Your task to perform on an android device: Do I have any events today? Image 0: 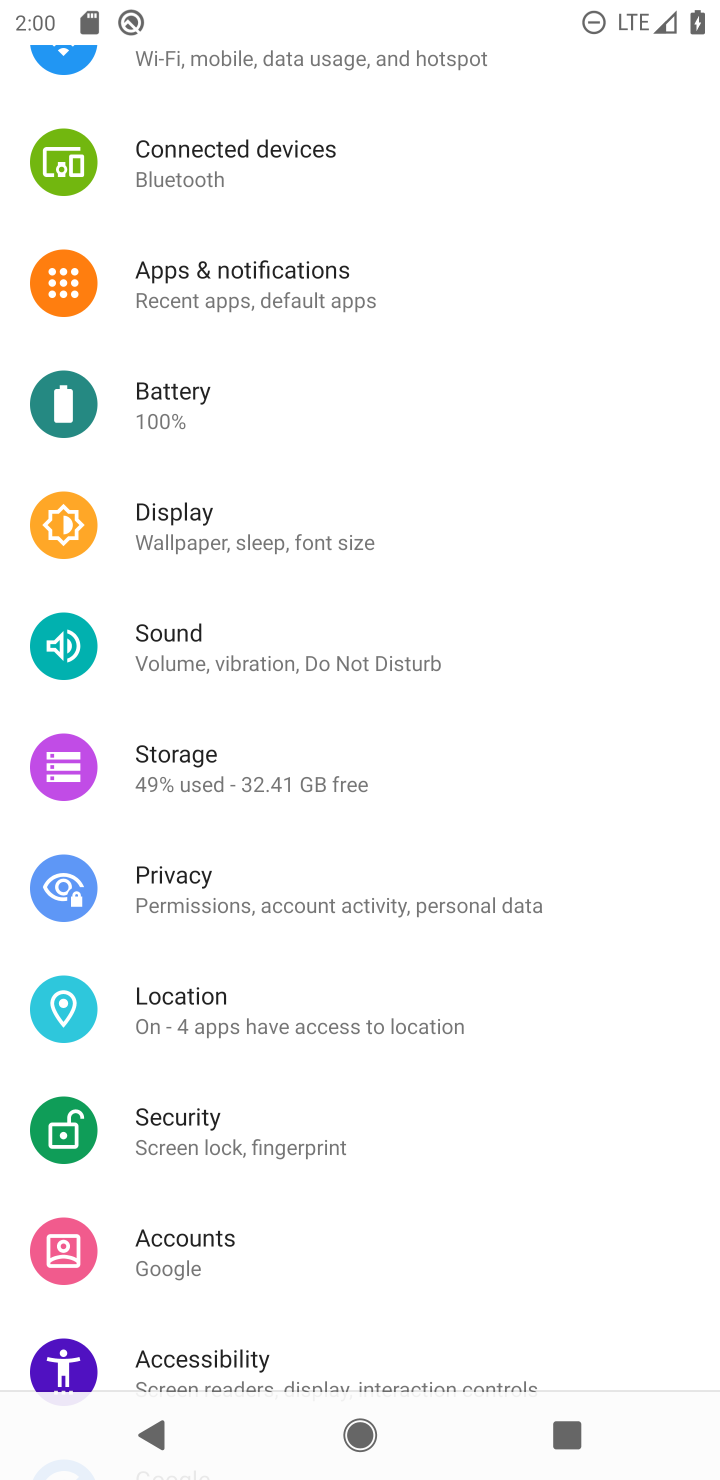
Step 0: press home button
Your task to perform on an android device: Do I have any events today? Image 1: 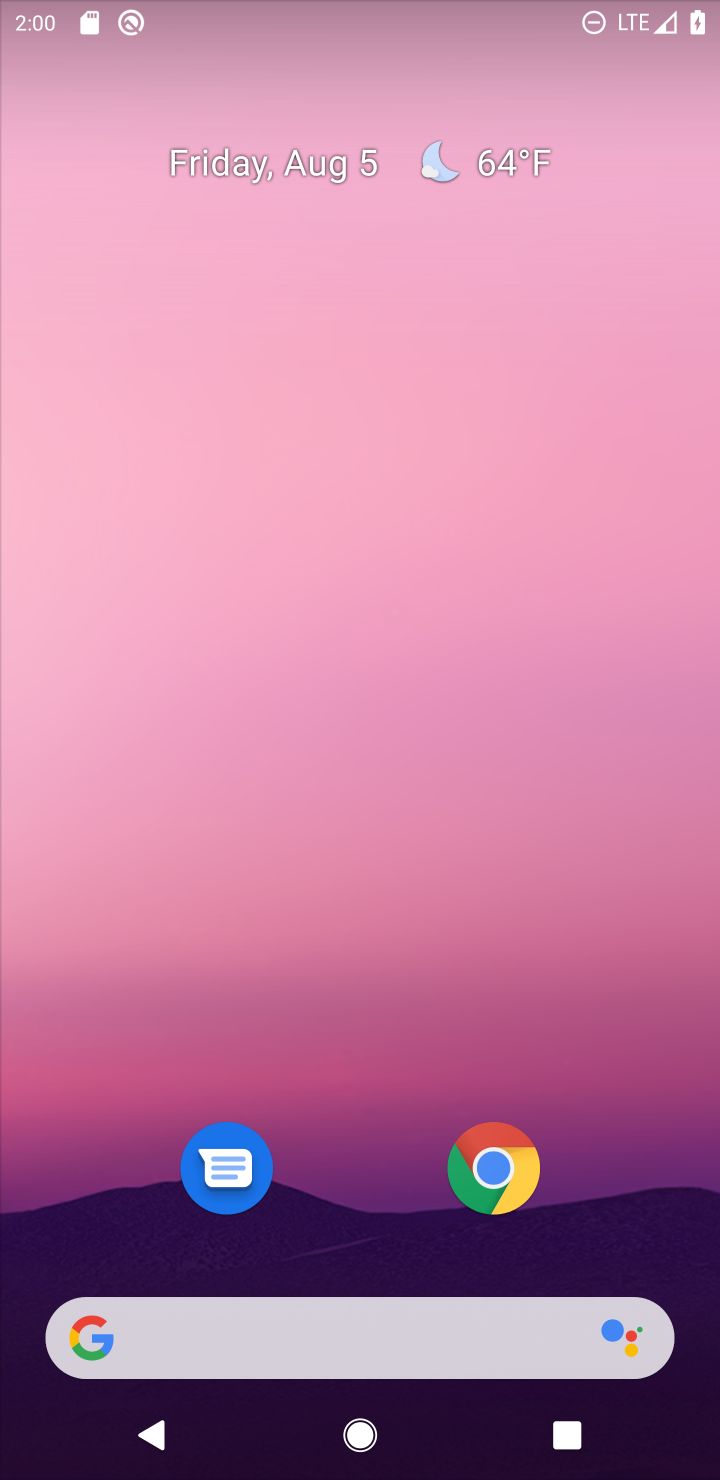
Step 1: drag from (504, 651) to (300, 14)
Your task to perform on an android device: Do I have any events today? Image 2: 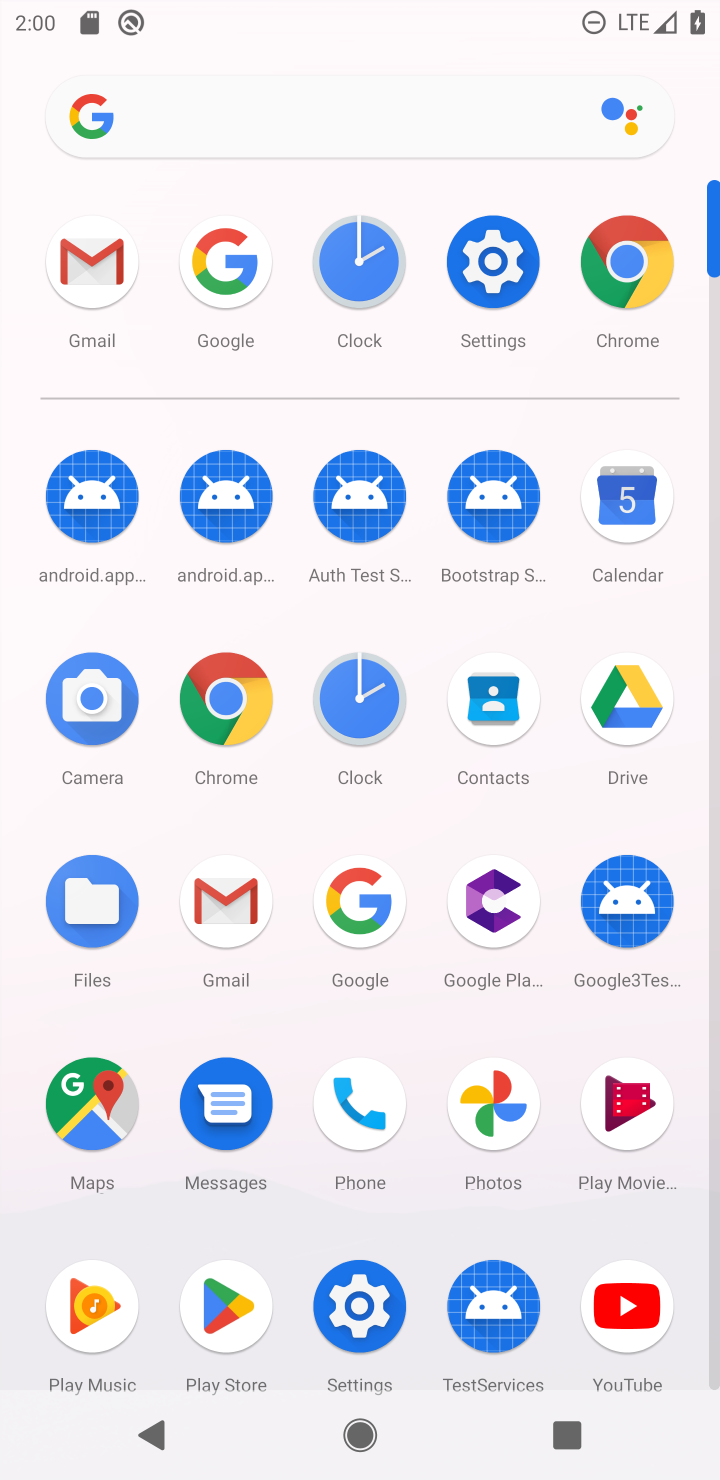
Step 2: click (608, 513)
Your task to perform on an android device: Do I have any events today? Image 3: 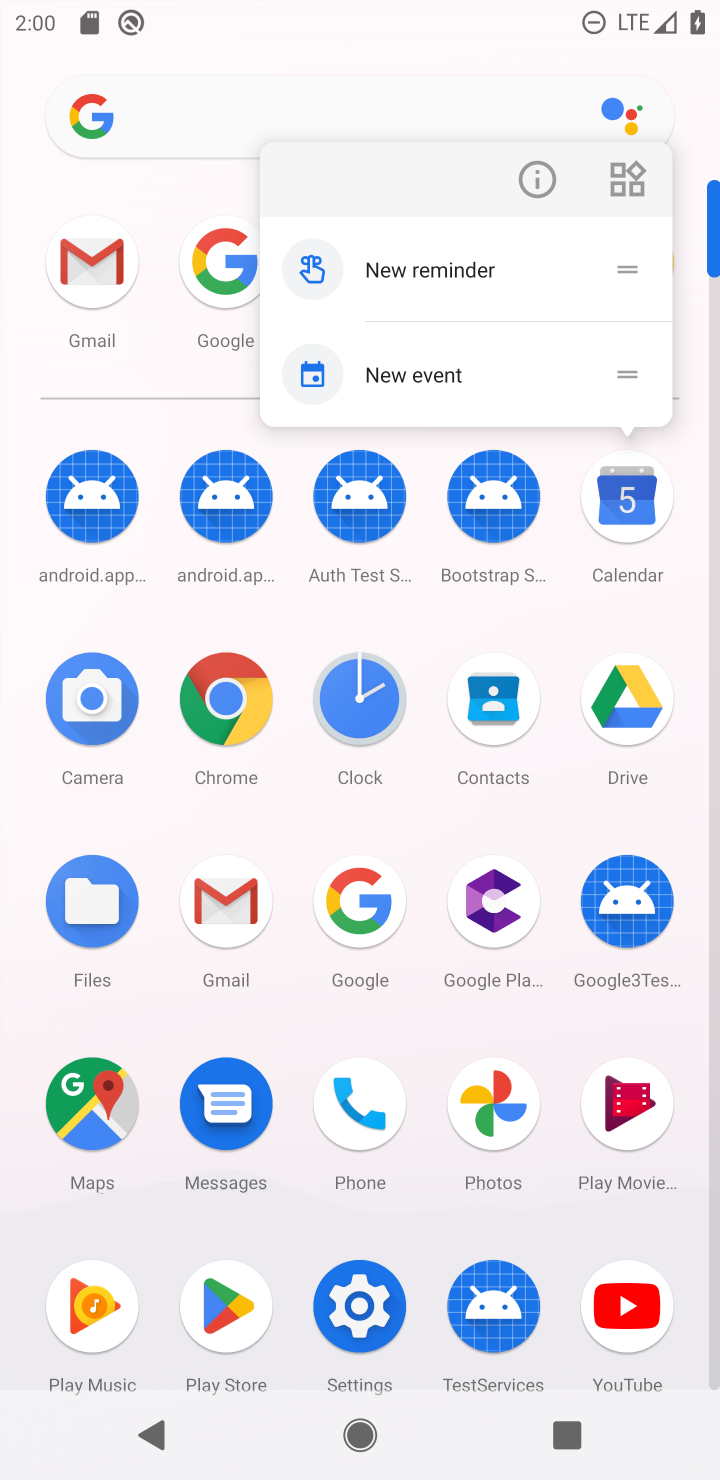
Step 3: click (608, 513)
Your task to perform on an android device: Do I have any events today? Image 4: 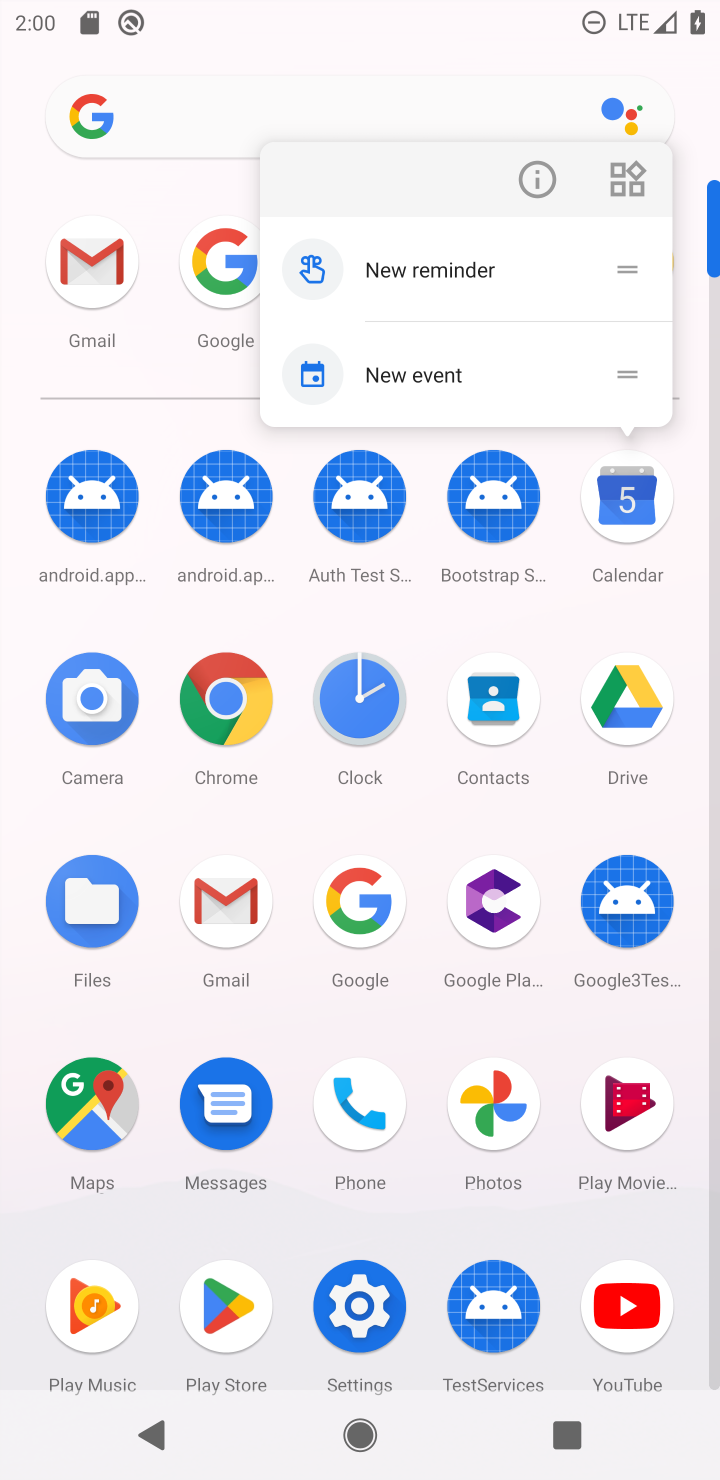
Step 4: click (608, 513)
Your task to perform on an android device: Do I have any events today? Image 5: 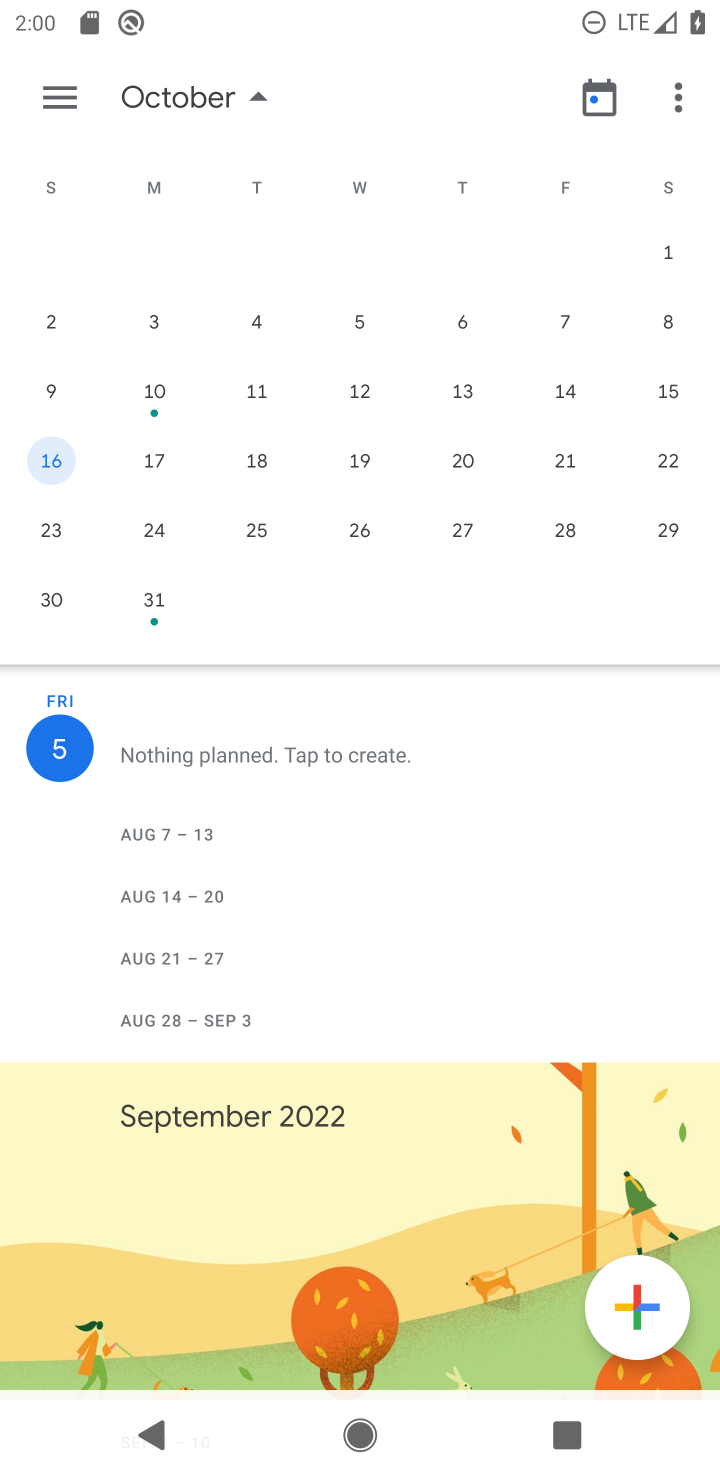
Step 5: task complete